Your task to perform on an android device: turn off notifications settings in the gmail app Image 0: 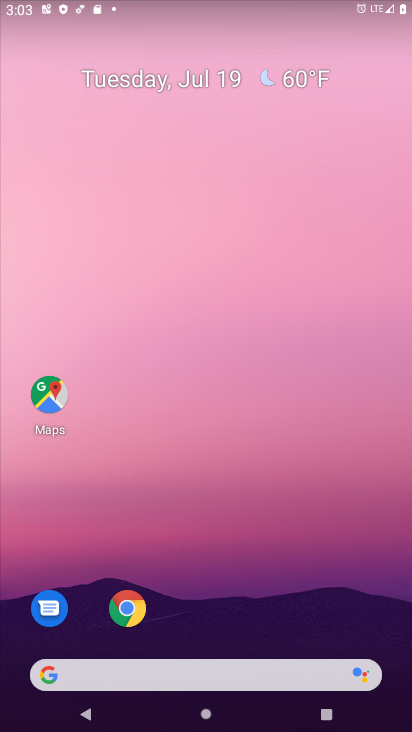
Step 0: drag from (281, 604) to (341, 0)
Your task to perform on an android device: turn off notifications settings in the gmail app Image 1: 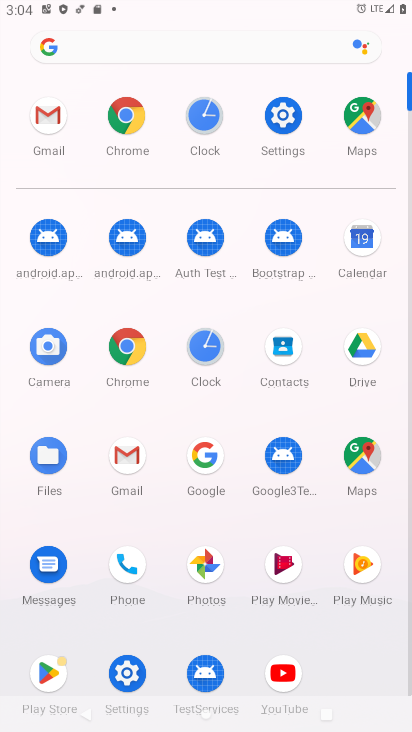
Step 1: click (46, 107)
Your task to perform on an android device: turn off notifications settings in the gmail app Image 2: 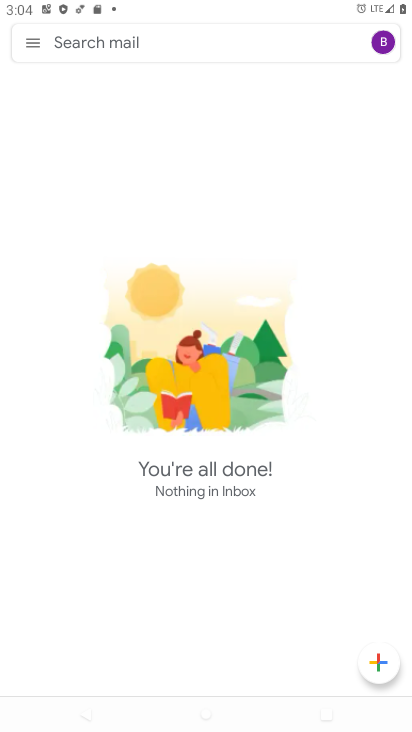
Step 2: click (29, 41)
Your task to perform on an android device: turn off notifications settings in the gmail app Image 3: 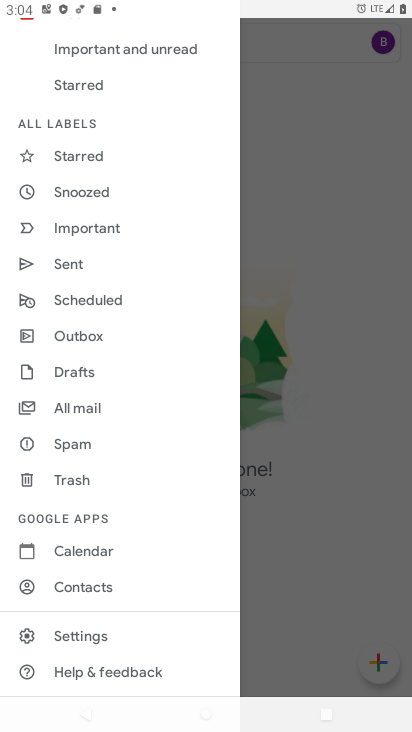
Step 3: click (76, 629)
Your task to perform on an android device: turn off notifications settings in the gmail app Image 4: 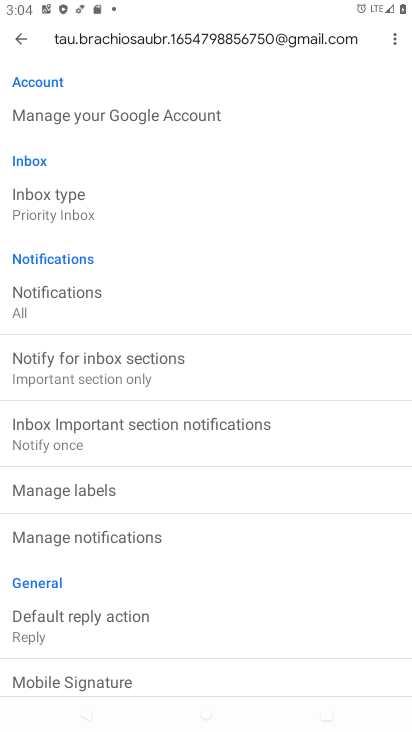
Step 4: click (51, 288)
Your task to perform on an android device: turn off notifications settings in the gmail app Image 5: 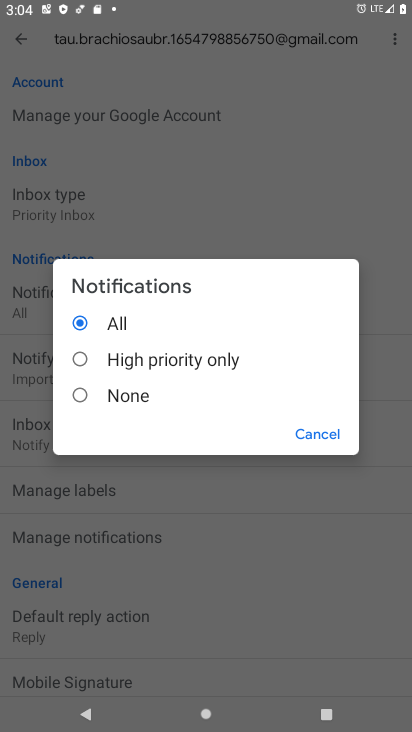
Step 5: click (118, 400)
Your task to perform on an android device: turn off notifications settings in the gmail app Image 6: 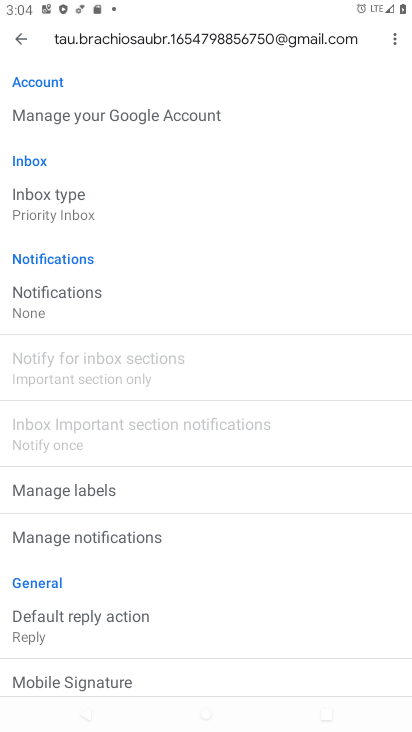
Step 6: task complete